Your task to perform on an android device: change the clock display to show seconds Image 0: 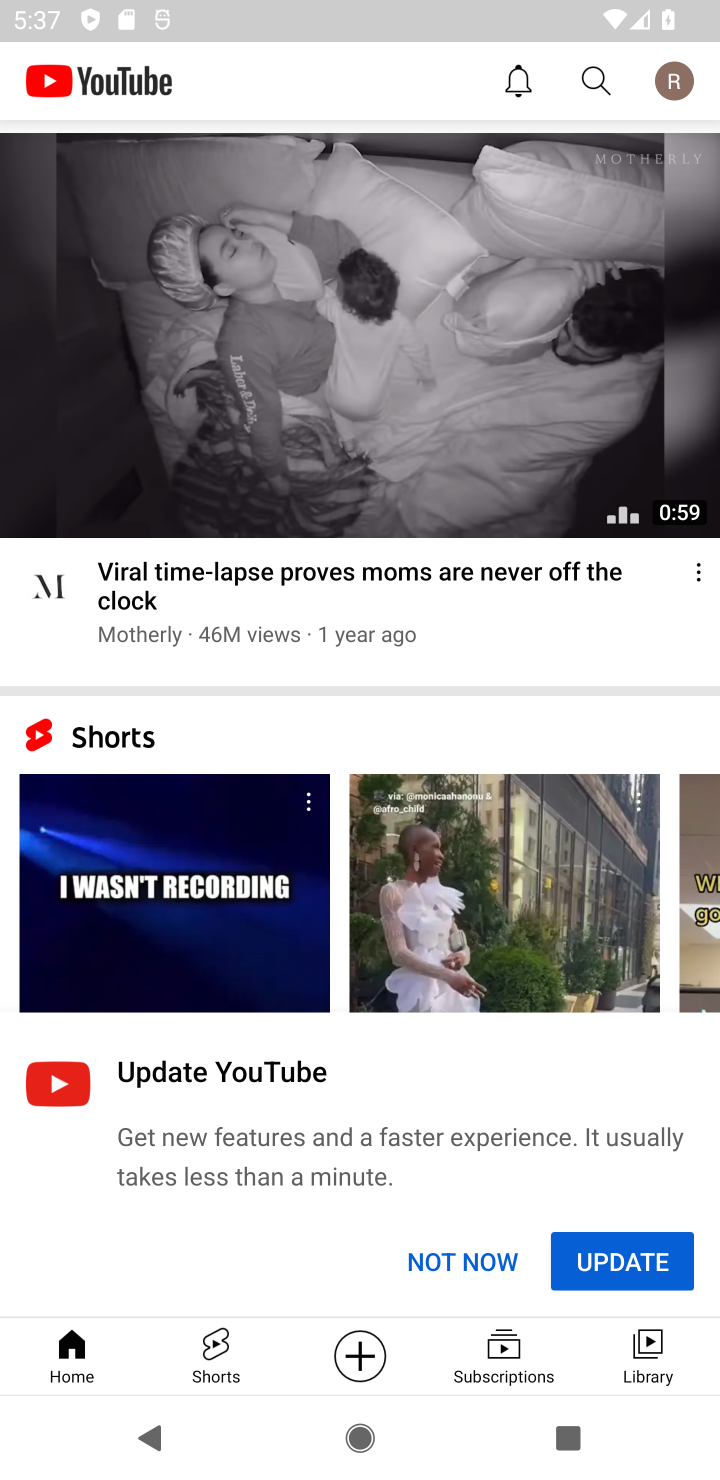
Step 0: press home button
Your task to perform on an android device: change the clock display to show seconds Image 1: 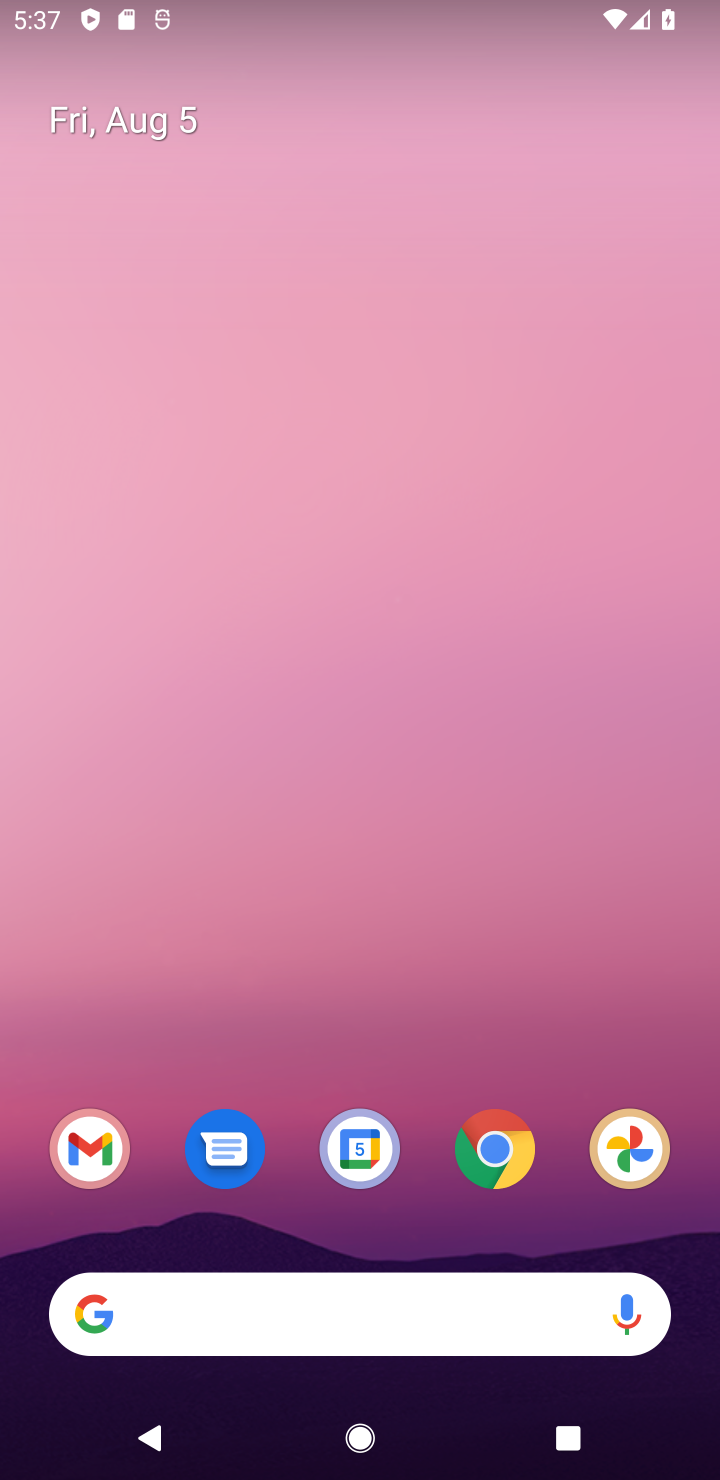
Step 1: drag from (329, 1076) to (412, 106)
Your task to perform on an android device: change the clock display to show seconds Image 2: 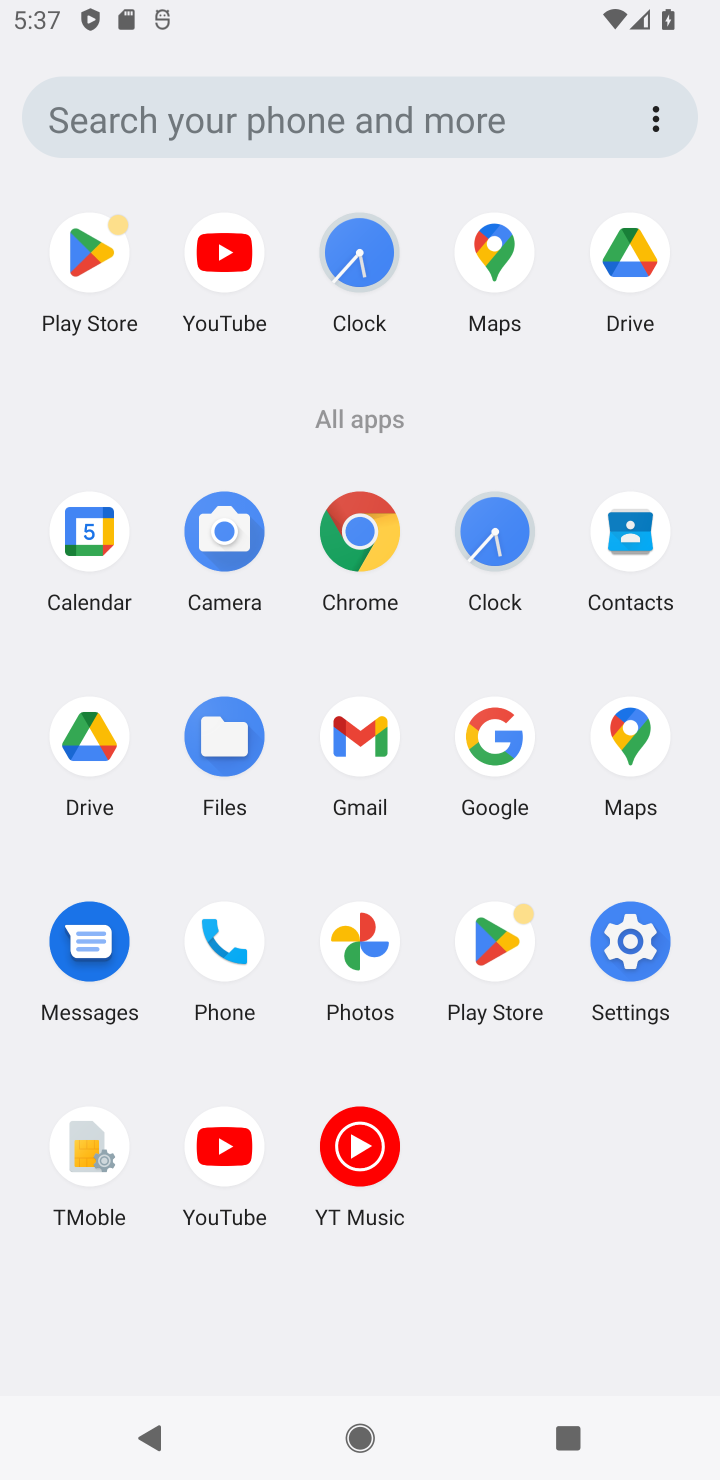
Step 2: click (353, 278)
Your task to perform on an android device: change the clock display to show seconds Image 3: 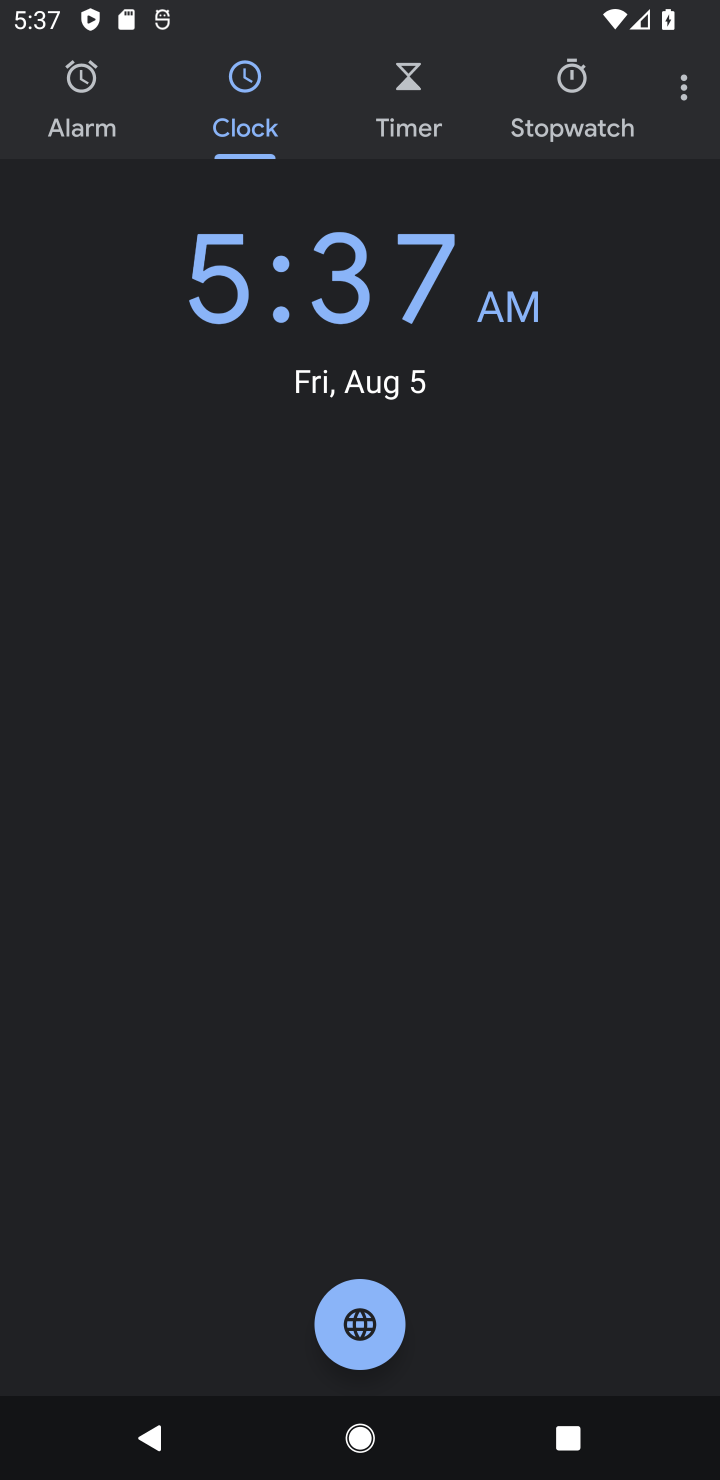
Step 3: click (681, 88)
Your task to perform on an android device: change the clock display to show seconds Image 4: 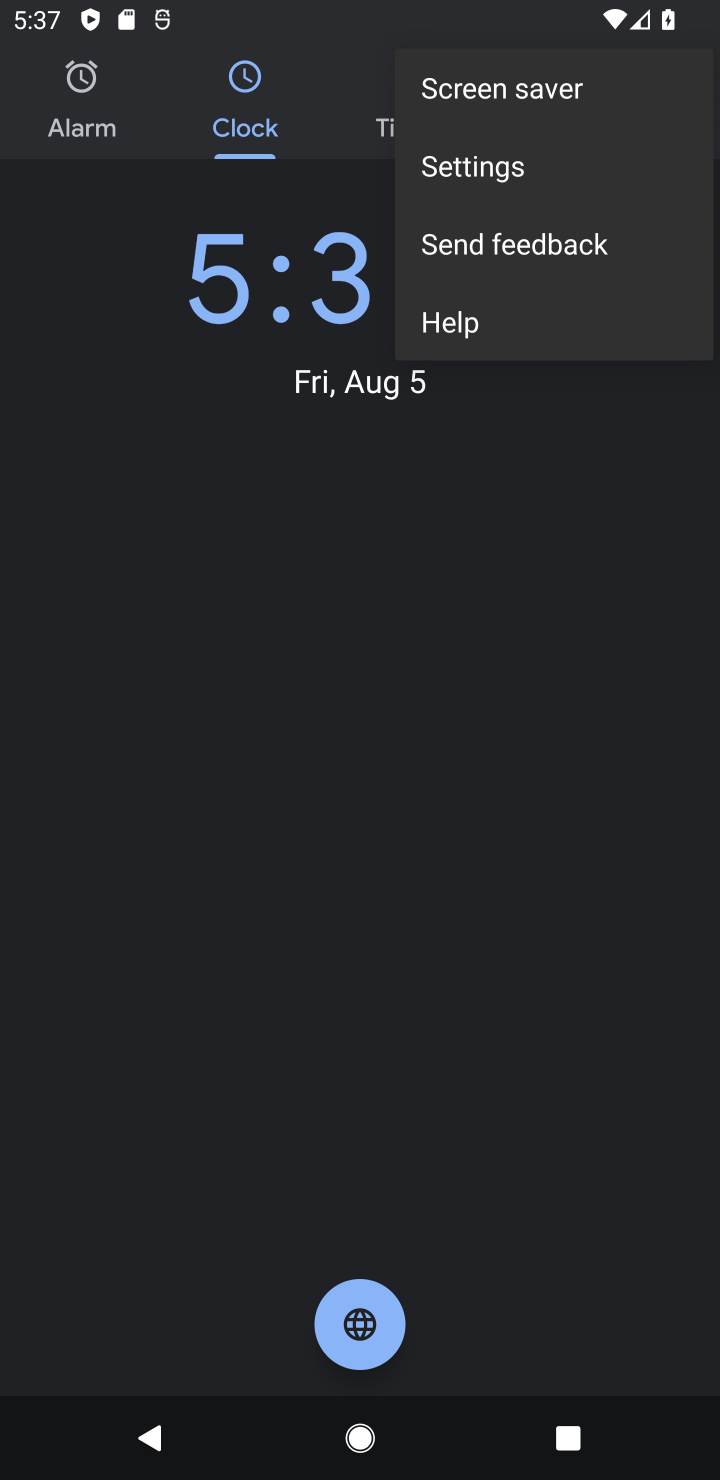
Step 4: click (473, 179)
Your task to perform on an android device: change the clock display to show seconds Image 5: 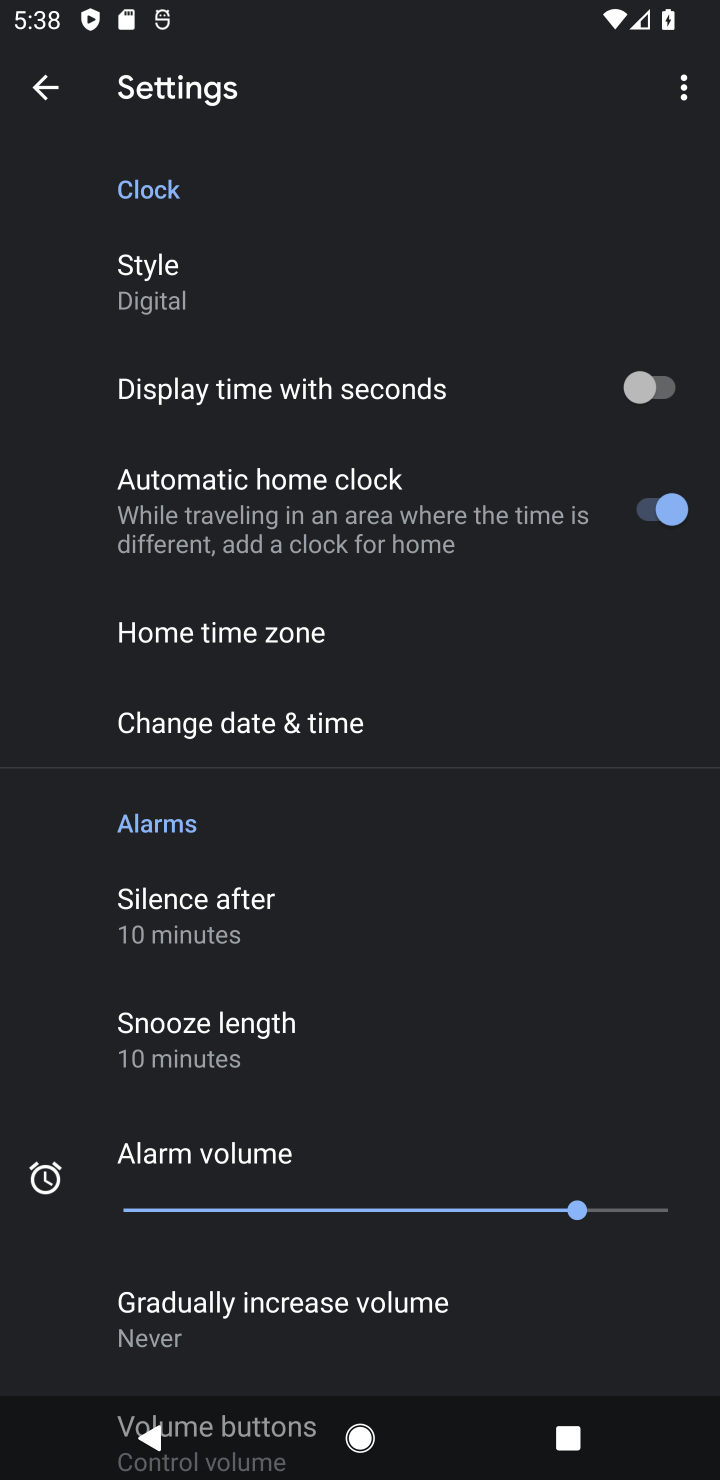
Step 5: click (280, 298)
Your task to perform on an android device: change the clock display to show seconds Image 6: 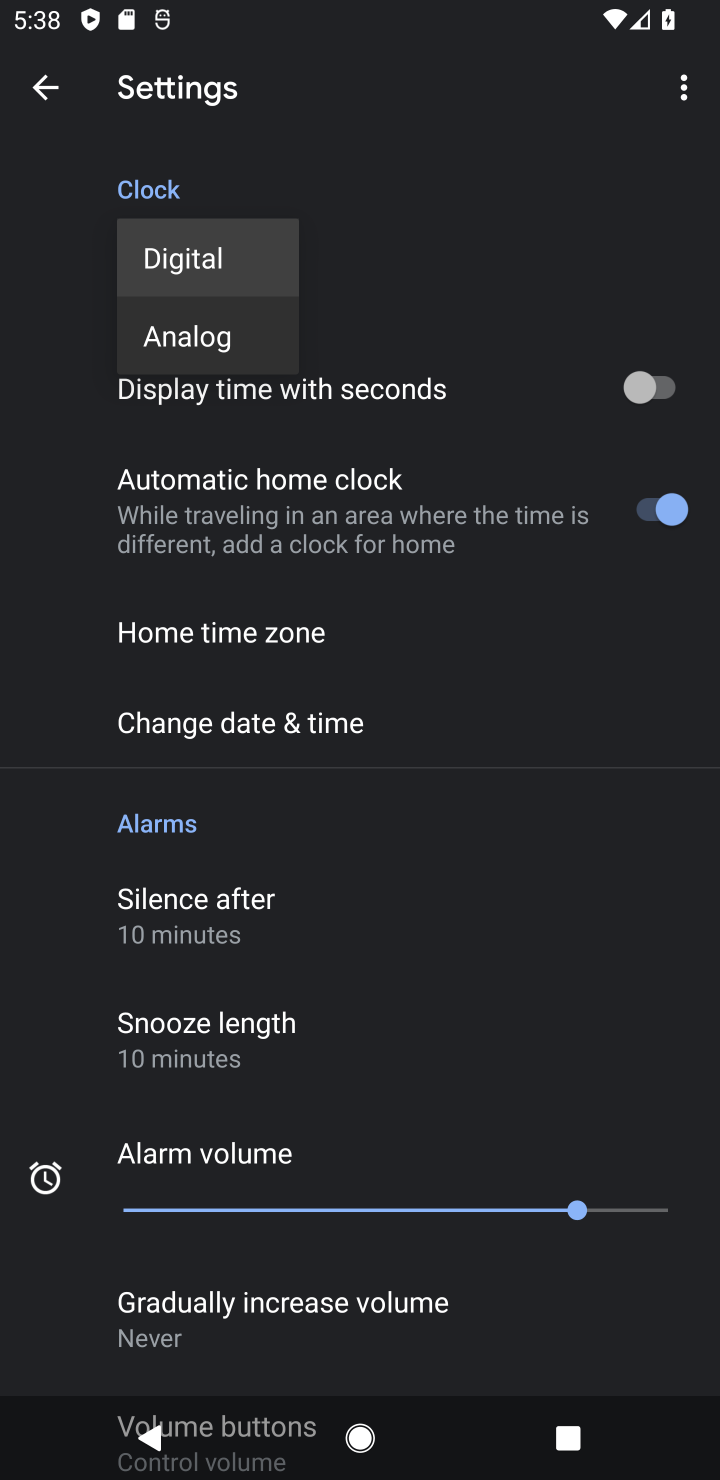
Step 6: click (228, 339)
Your task to perform on an android device: change the clock display to show seconds Image 7: 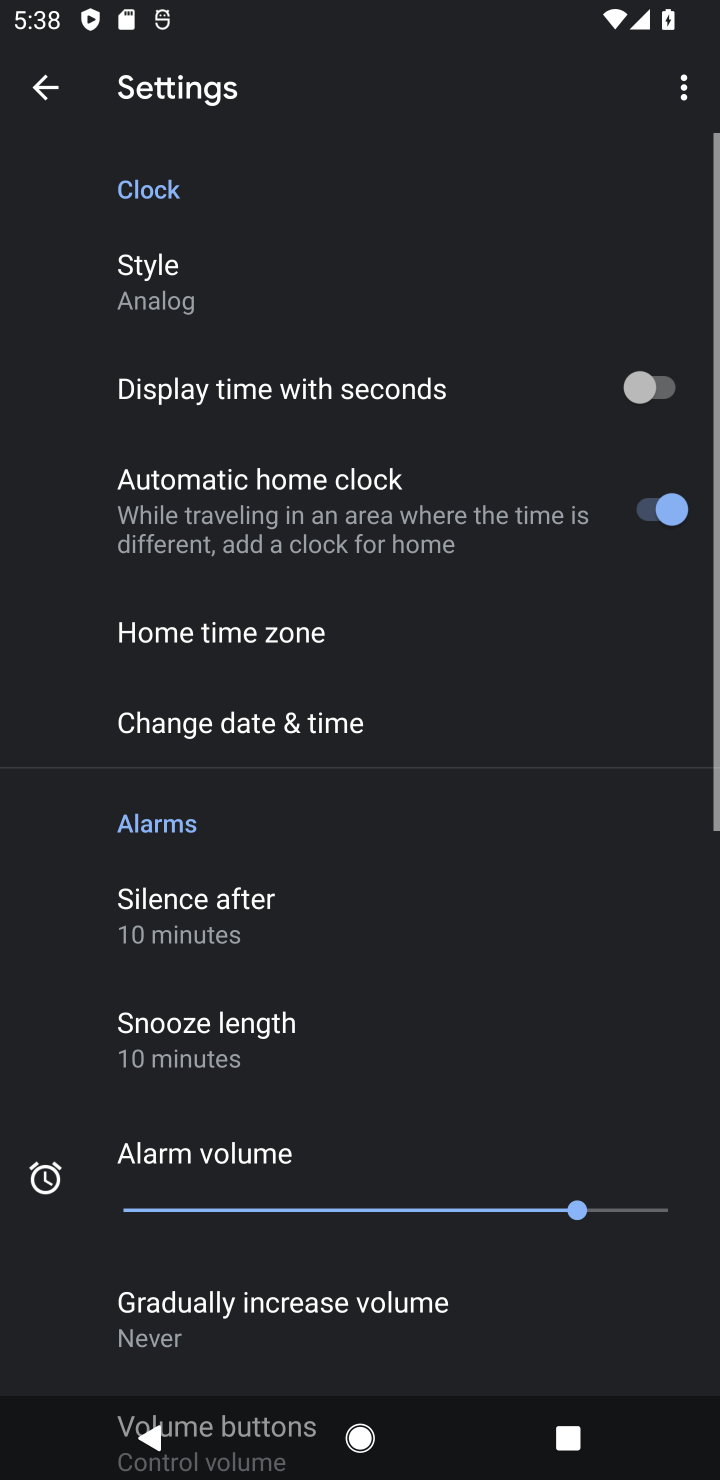
Step 7: task complete